Your task to perform on an android device: Find coffee shops on Maps Image 0: 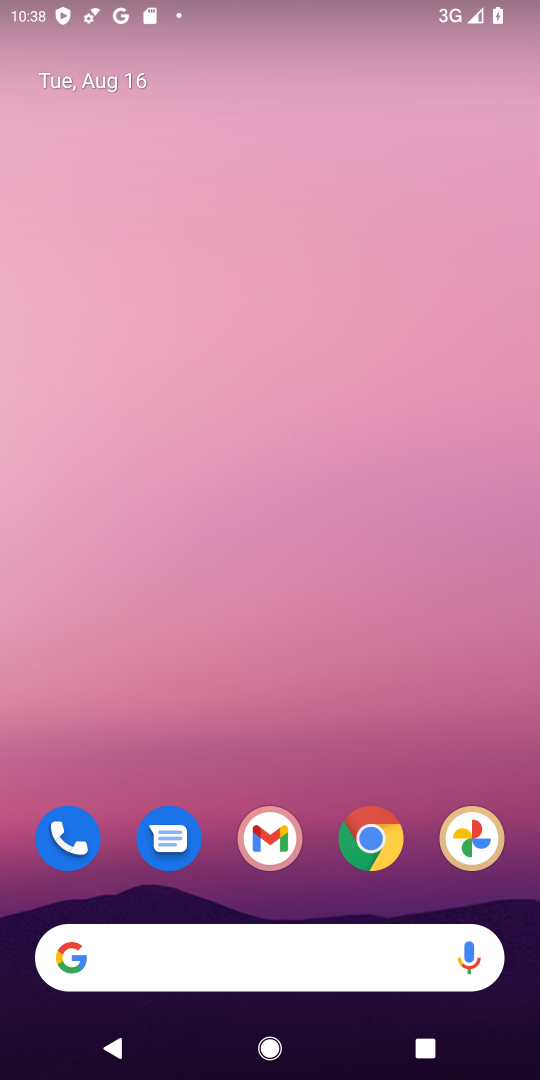
Step 0: press home button
Your task to perform on an android device: Find coffee shops on Maps Image 1: 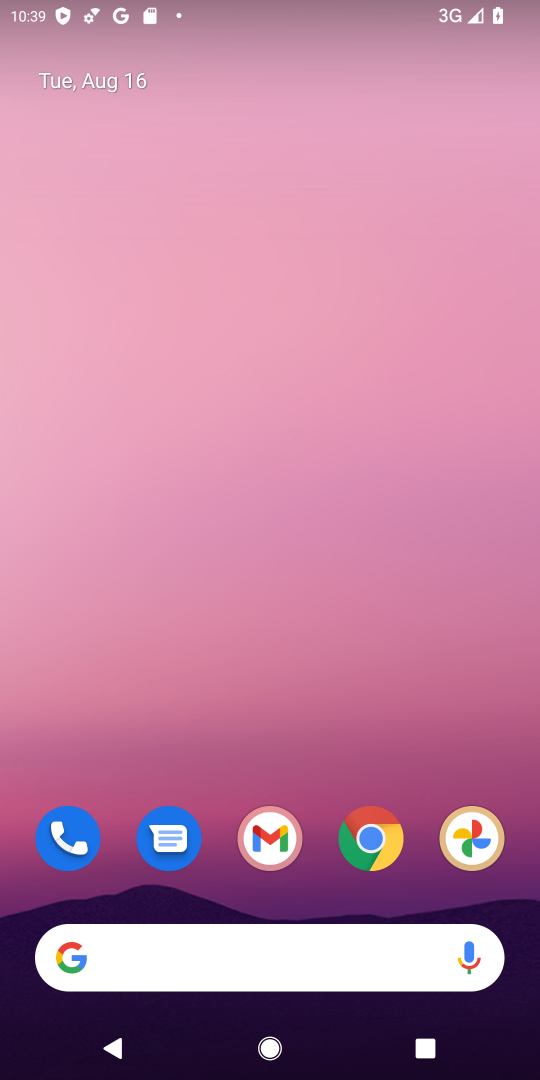
Step 1: drag from (307, 888) to (294, 154)
Your task to perform on an android device: Find coffee shops on Maps Image 2: 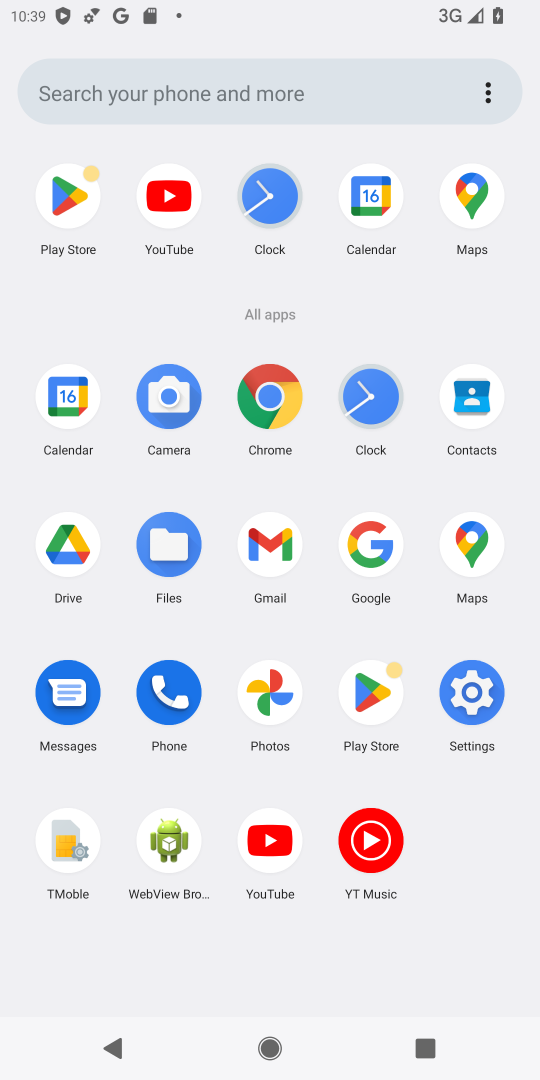
Step 2: click (477, 199)
Your task to perform on an android device: Find coffee shops on Maps Image 3: 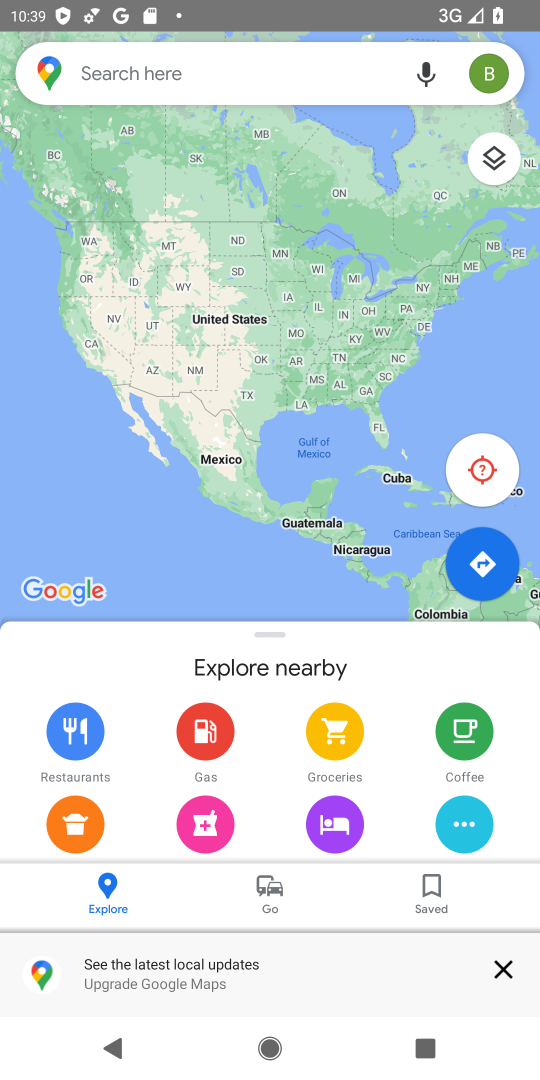
Step 3: click (143, 64)
Your task to perform on an android device: Find coffee shops on Maps Image 4: 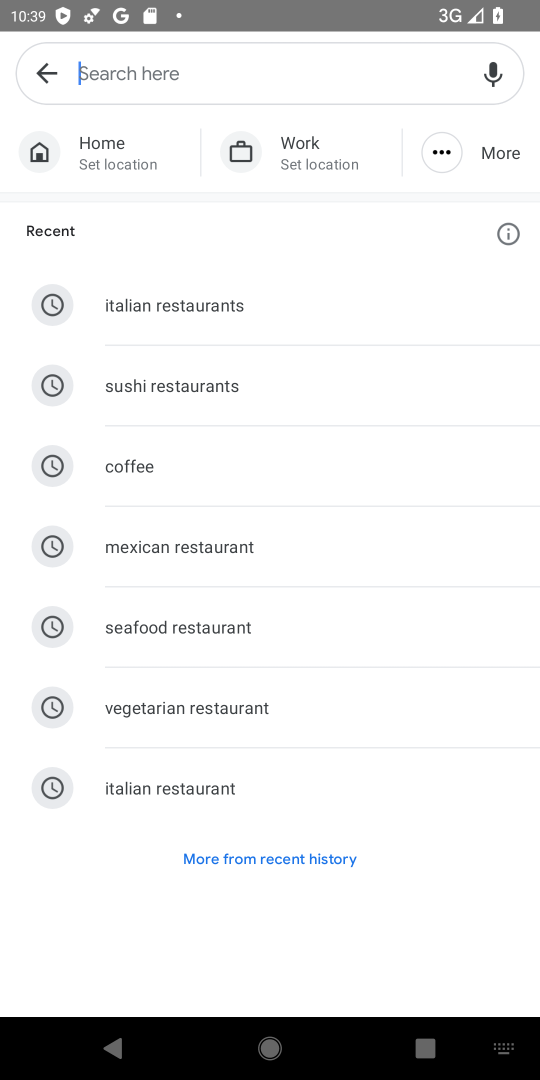
Step 4: type " coffee shops"
Your task to perform on an android device: Find coffee shops on Maps Image 5: 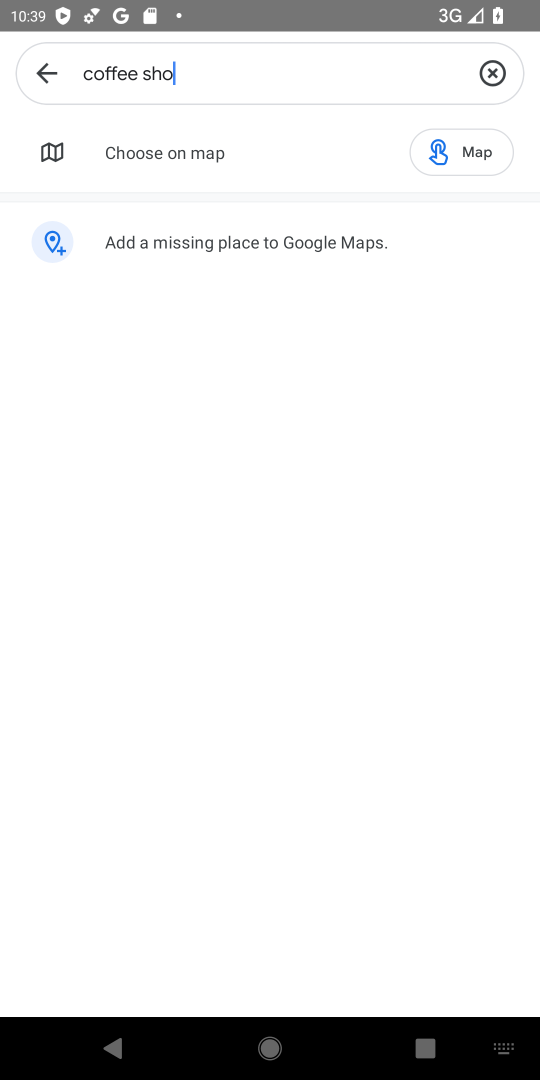
Step 5: press enter
Your task to perform on an android device: Find coffee shops on Maps Image 6: 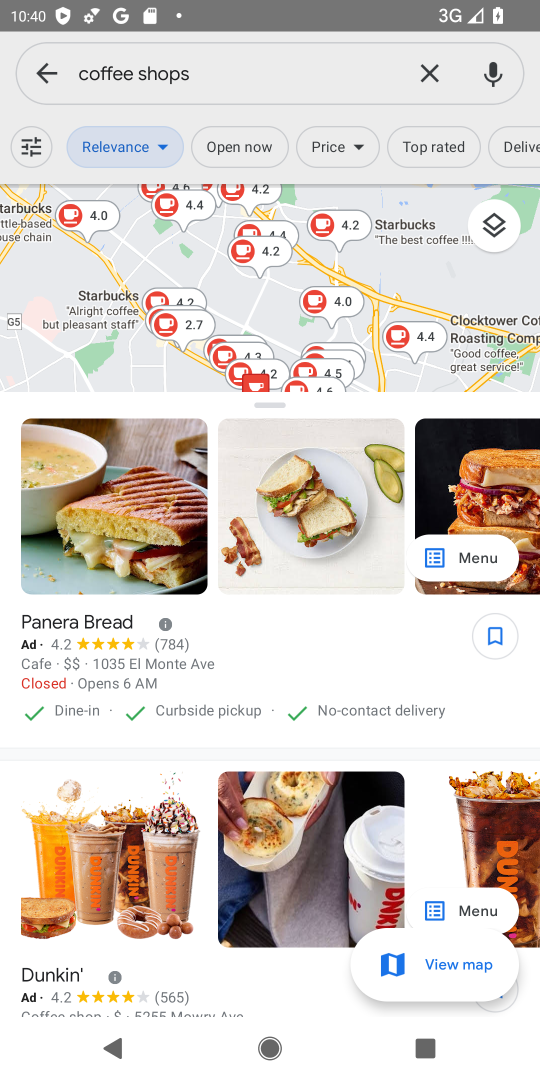
Step 6: task complete